Your task to perform on an android device: Open maps Image 0: 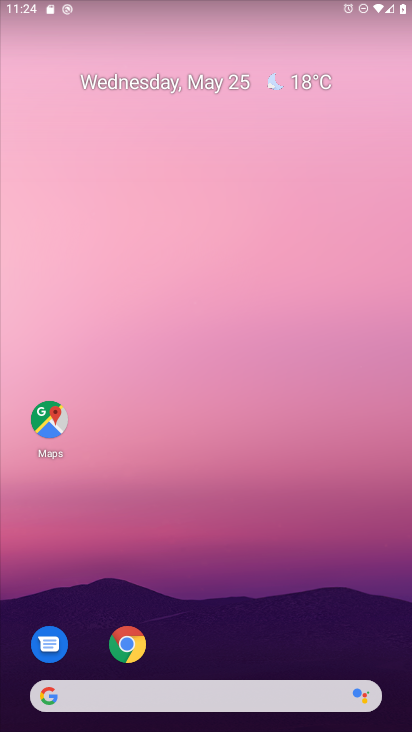
Step 0: press home button
Your task to perform on an android device: Open maps Image 1: 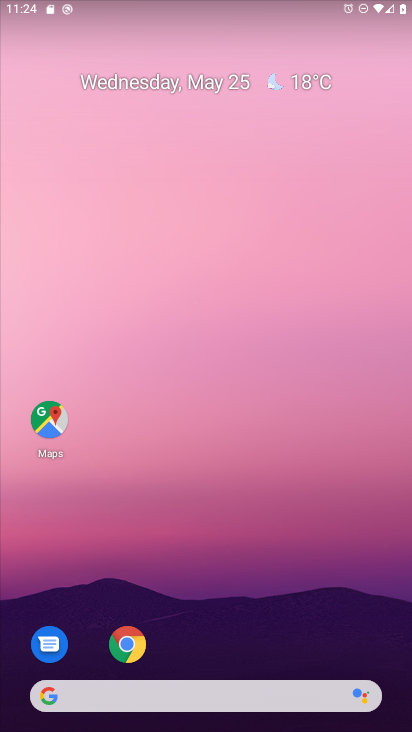
Step 1: click (48, 410)
Your task to perform on an android device: Open maps Image 2: 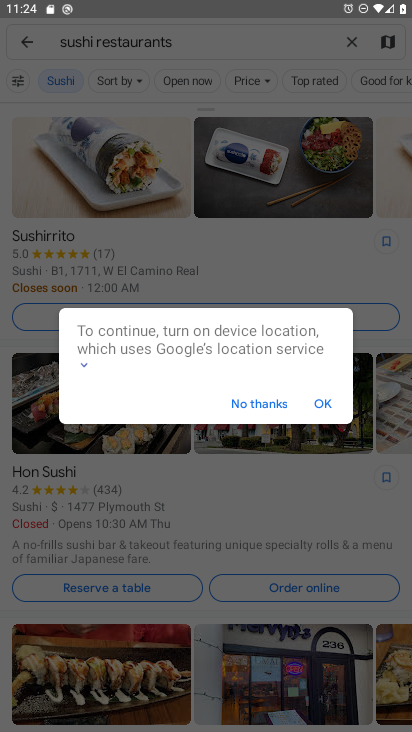
Step 2: click (263, 407)
Your task to perform on an android device: Open maps Image 3: 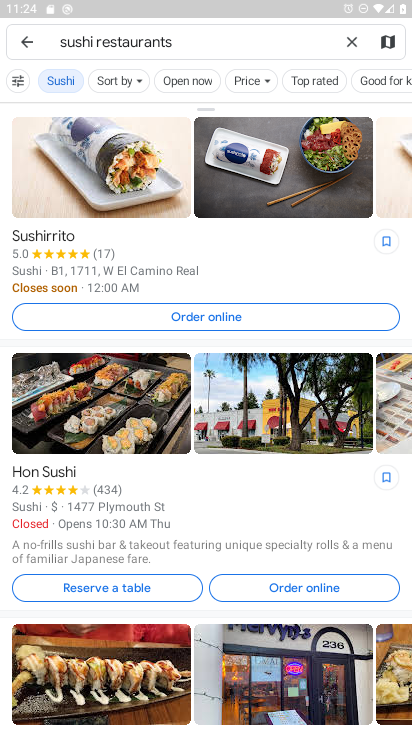
Step 3: click (28, 45)
Your task to perform on an android device: Open maps Image 4: 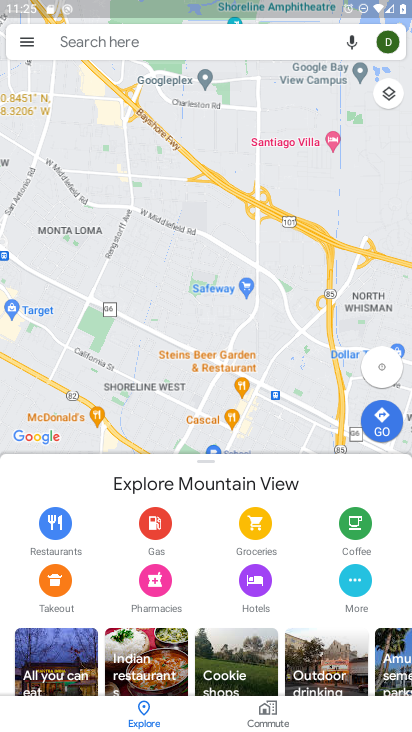
Step 4: task complete